Your task to perform on an android device: Go to calendar. Show me events next week Image 0: 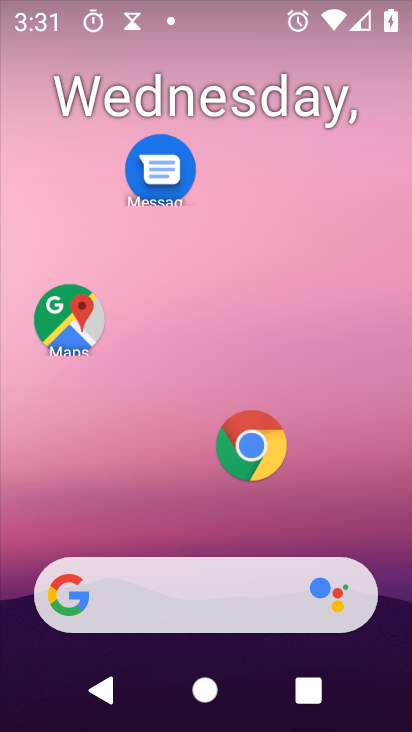
Step 0: press home button
Your task to perform on an android device: Go to calendar. Show me events next week Image 1: 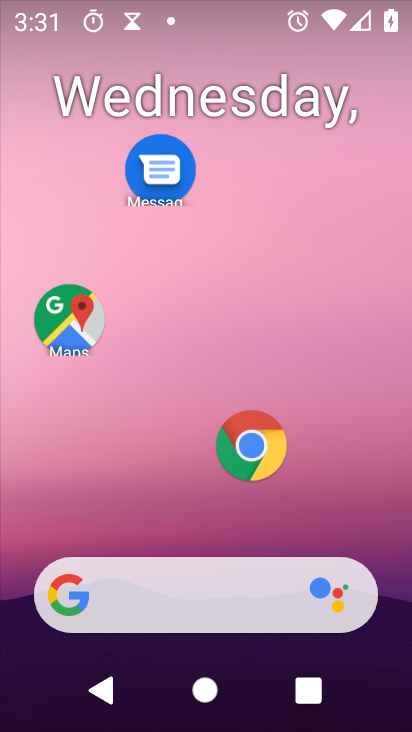
Step 1: drag from (56, 550) to (297, 167)
Your task to perform on an android device: Go to calendar. Show me events next week Image 2: 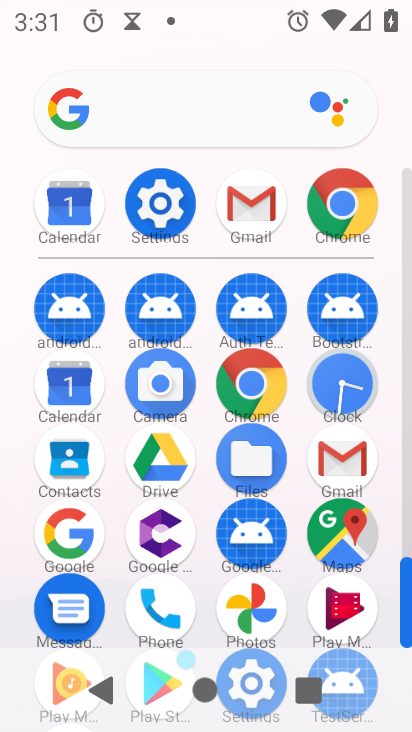
Step 2: click (66, 380)
Your task to perform on an android device: Go to calendar. Show me events next week Image 3: 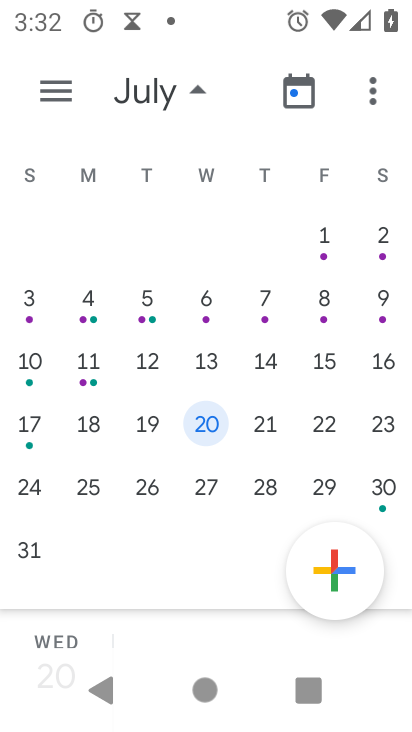
Step 3: task complete